Your task to perform on an android device: Open Google Image 0: 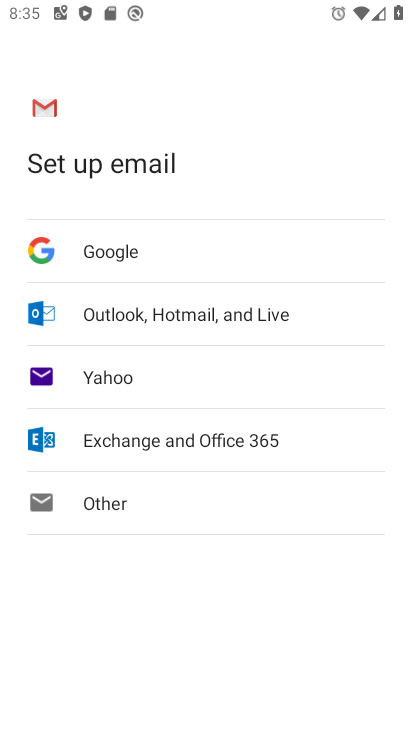
Step 0: drag from (216, 636) to (263, 154)
Your task to perform on an android device: Open Google Image 1: 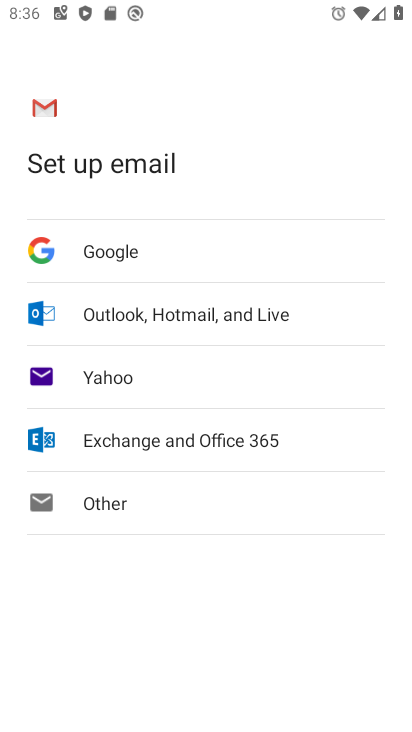
Step 1: click (158, 674)
Your task to perform on an android device: Open Google Image 2: 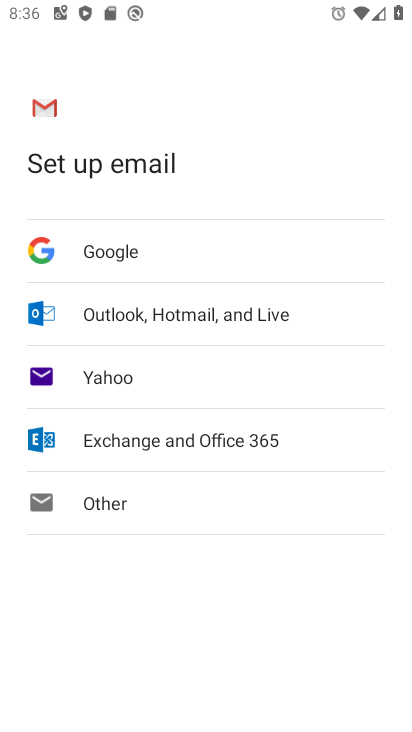
Step 2: press home button
Your task to perform on an android device: Open Google Image 3: 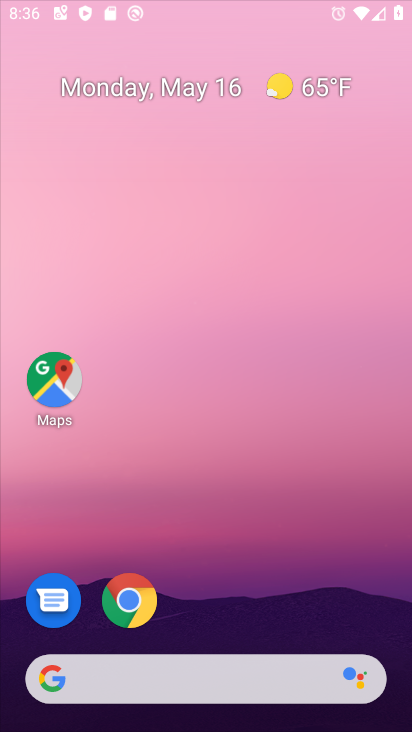
Step 3: drag from (264, 470) to (305, 12)
Your task to perform on an android device: Open Google Image 4: 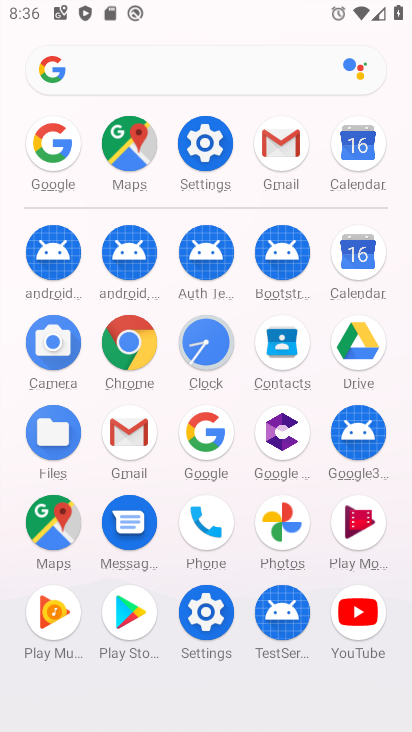
Step 4: click (193, 426)
Your task to perform on an android device: Open Google Image 5: 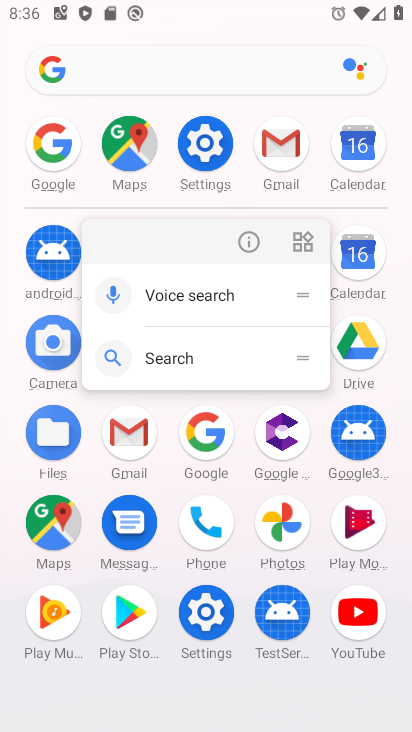
Step 5: click (252, 232)
Your task to perform on an android device: Open Google Image 6: 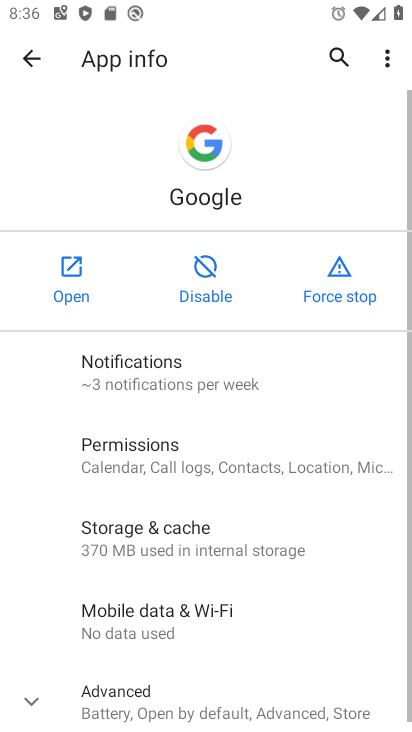
Step 6: click (96, 292)
Your task to perform on an android device: Open Google Image 7: 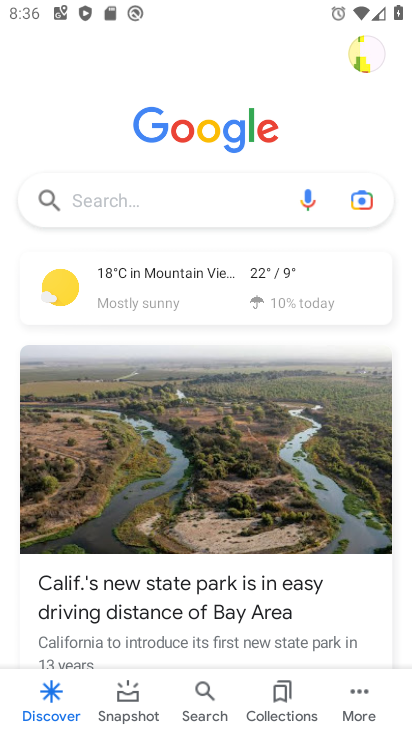
Step 7: task complete